Your task to perform on an android device: turn off translation in the chrome app Image 0: 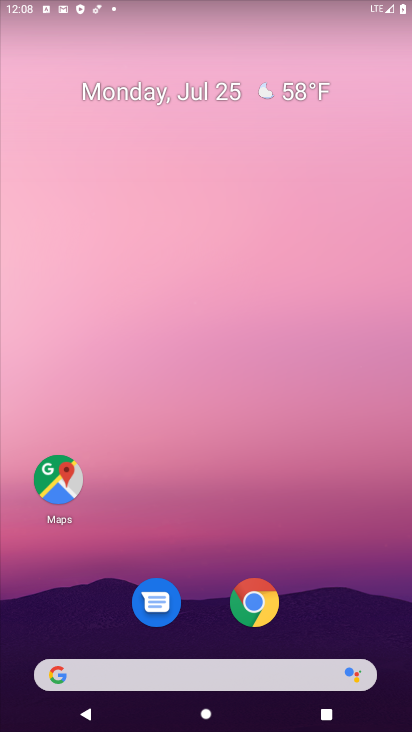
Step 0: click (264, 599)
Your task to perform on an android device: turn off translation in the chrome app Image 1: 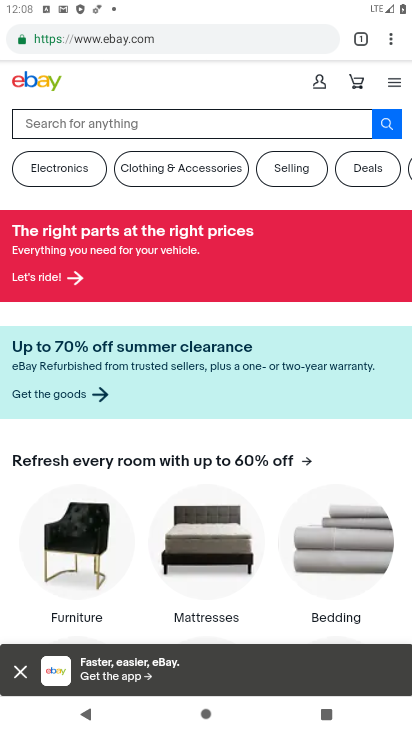
Step 1: click (392, 39)
Your task to perform on an android device: turn off translation in the chrome app Image 2: 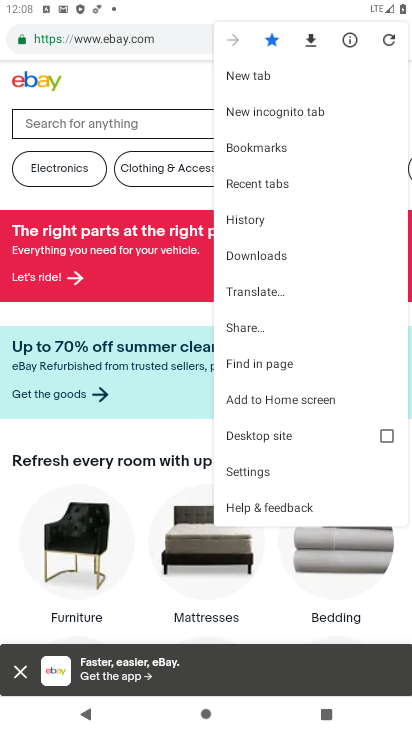
Step 2: click (255, 464)
Your task to perform on an android device: turn off translation in the chrome app Image 3: 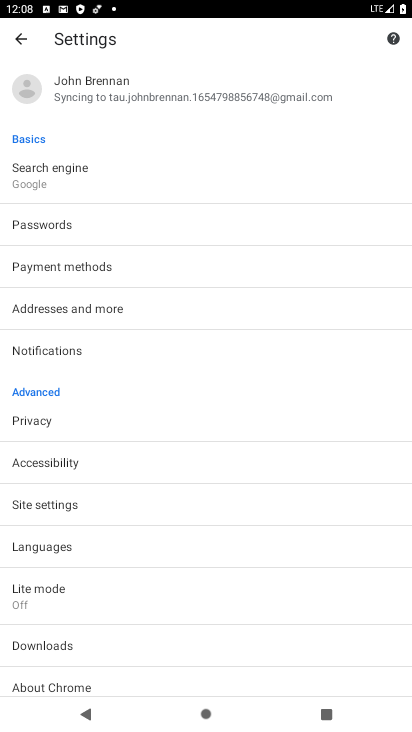
Step 3: click (75, 545)
Your task to perform on an android device: turn off translation in the chrome app Image 4: 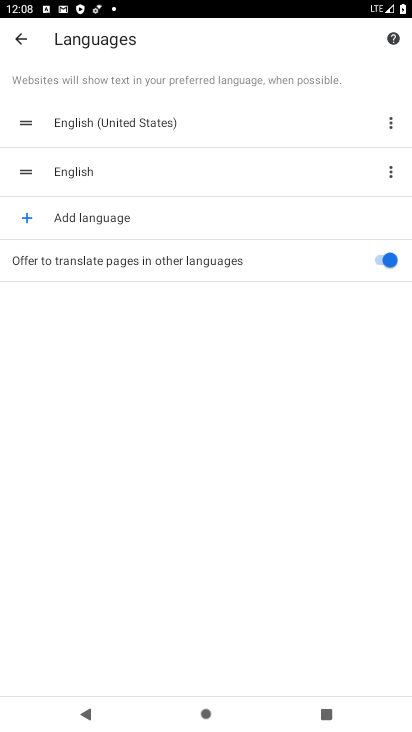
Step 4: click (373, 275)
Your task to perform on an android device: turn off translation in the chrome app Image 5: 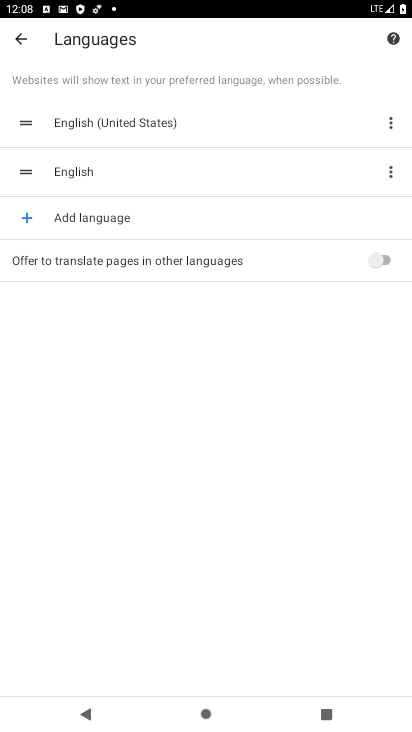
Step 5: task complete